Your task to perform on an android device: Open Yahoo.com Image 0: 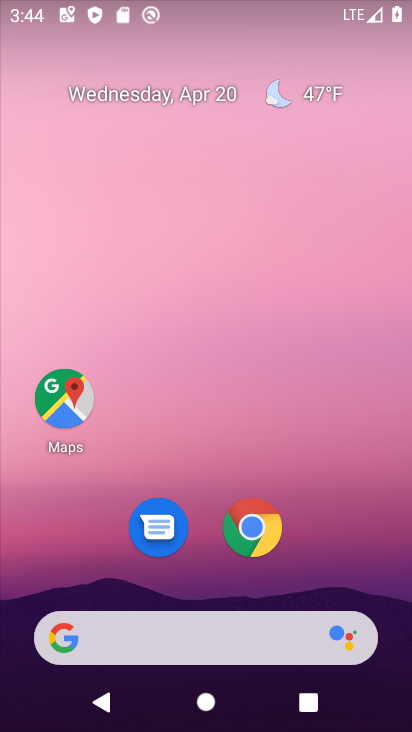
Step 0: click (253, 537)
Your task to perform on an android device: Open Yahoo.com Image 1: 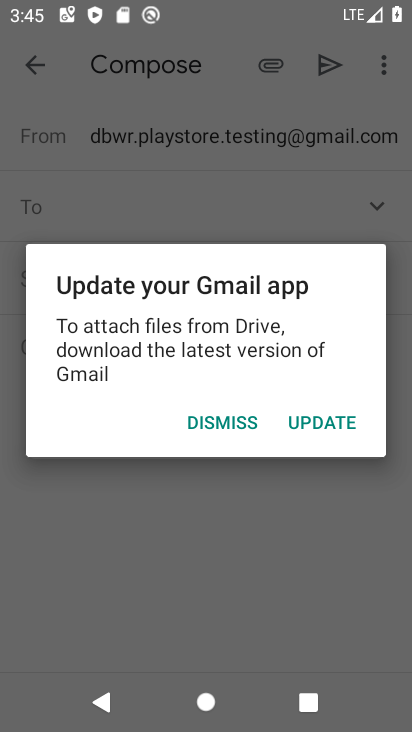
Step 1: press home button
Your task to perform on an android device: Open Yahoo.com Image 2: 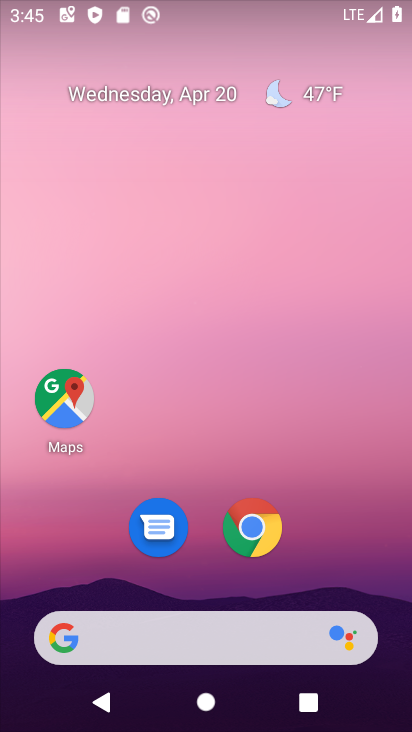
Step 2: click (258, 522)
Your task to perform on an android device: Open Yahoo.com Image 3: 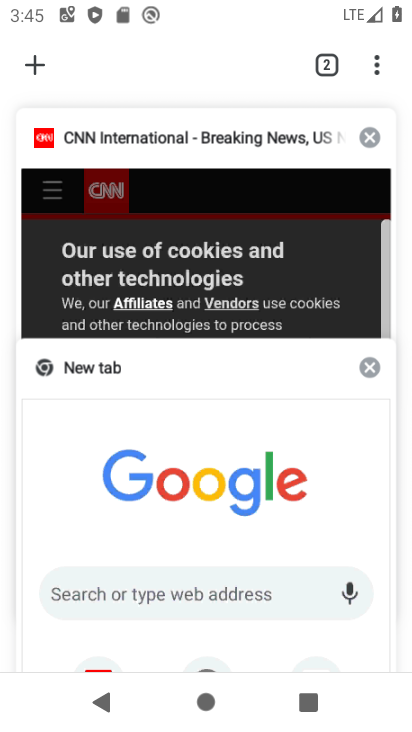
Step 3: click (39, 73)
Your task to perform on an android device: Open Yahoo.com Image 4: 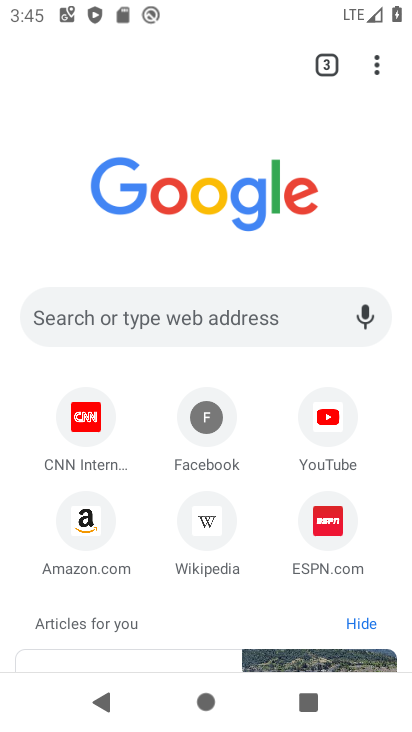
Step 4: click (143, 322)
Your task to perform on an android device: Open Yahoo.com Image 5: 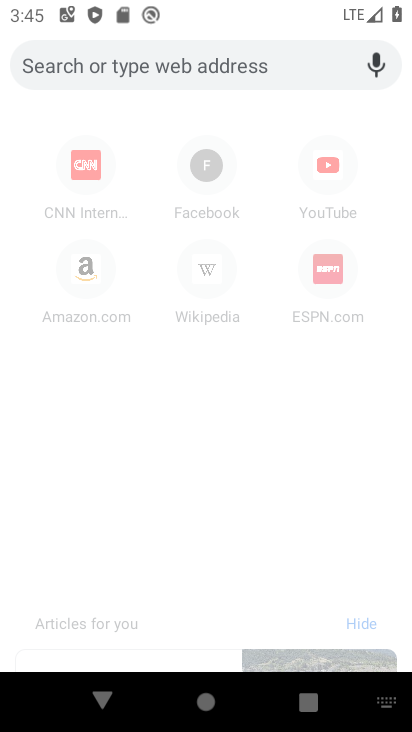
Step 5: type "yahoo.com"
Your task to perform on an android device: Open Yahoo.com Image 6: 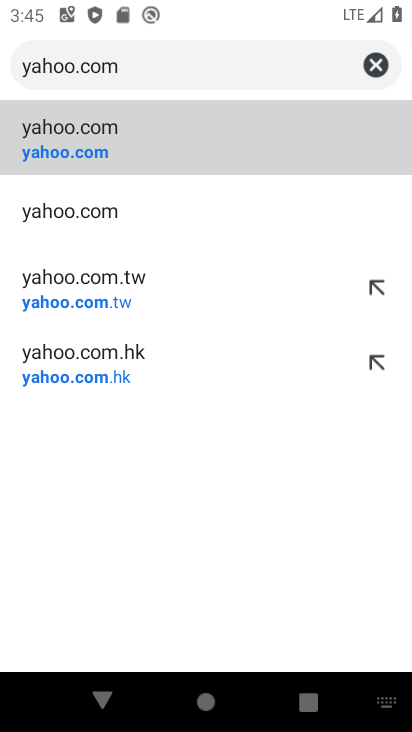
Step 6: click (74, 152)
Your task to perform on an android device: Open Yahoo.com Image 7: 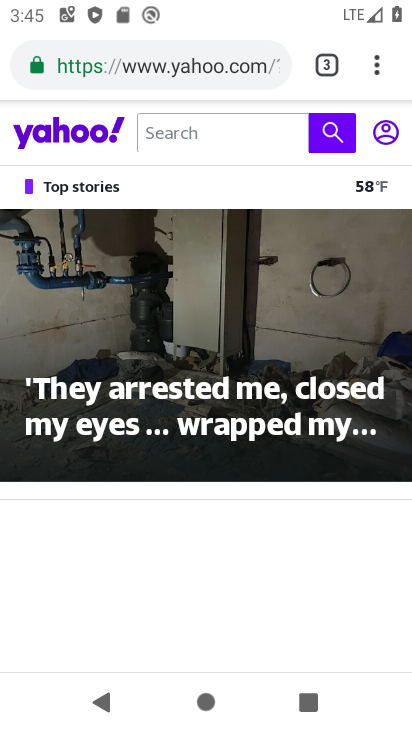
Step 7: task complete